Your task to perform on an android device: Go to Maps Image 0: 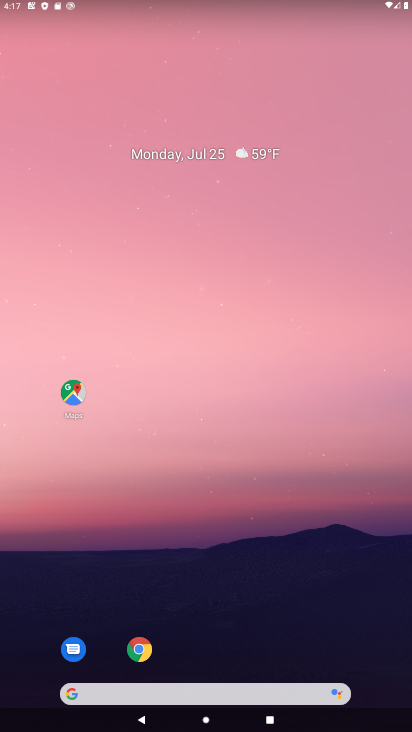
Step 0: drag from (303, 560) to (175, 124)
Your task to perform on an android device: Go to Maps Image 1: 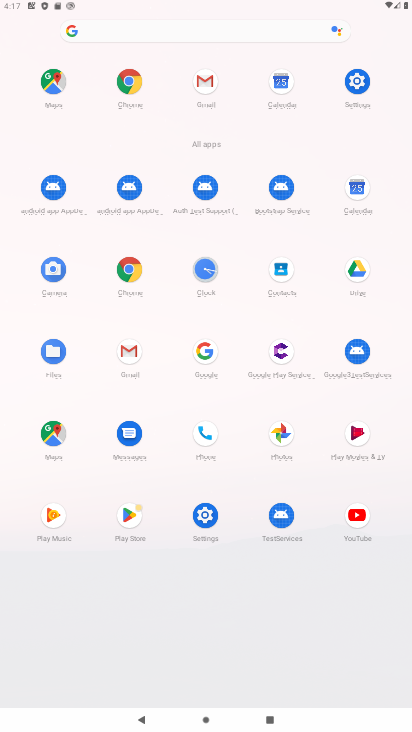
Step 1: click (46, 441)
Your task to perform on an android device: Go to Maps Image 2: 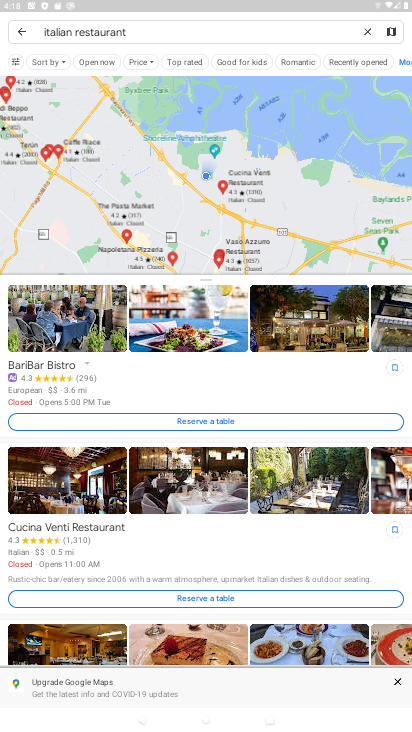
Step 2: task complete